Your task to perform on an android device: change the clock style Image 0: 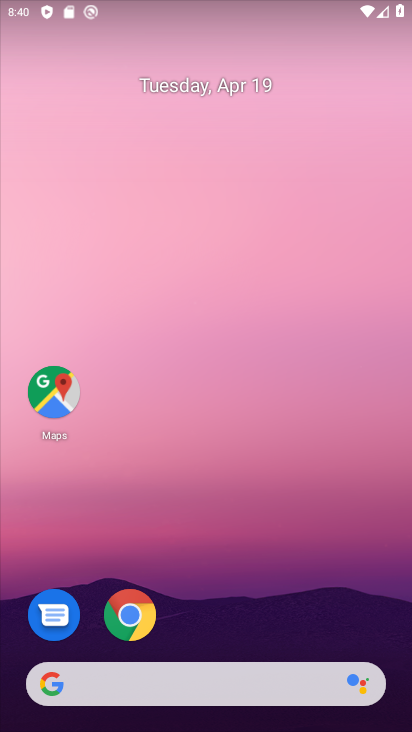
Step 0: drag from (271, 581) to (319, 234)
Your task to perform on an android device: change the clock style Image 1: 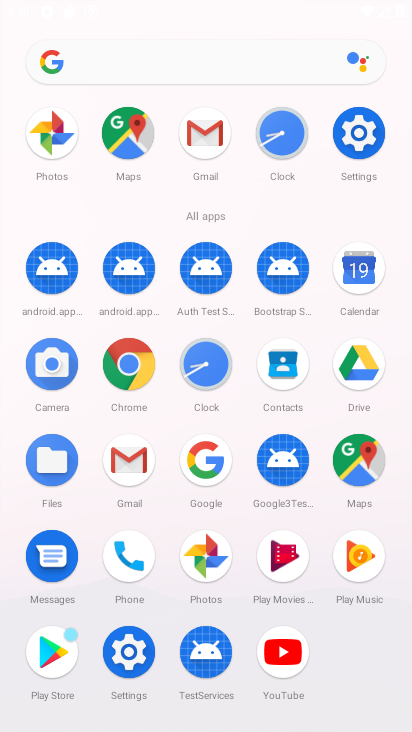
Step 1: click (286, 136)
Your task to perform on an android device: change the clock style Image 2: 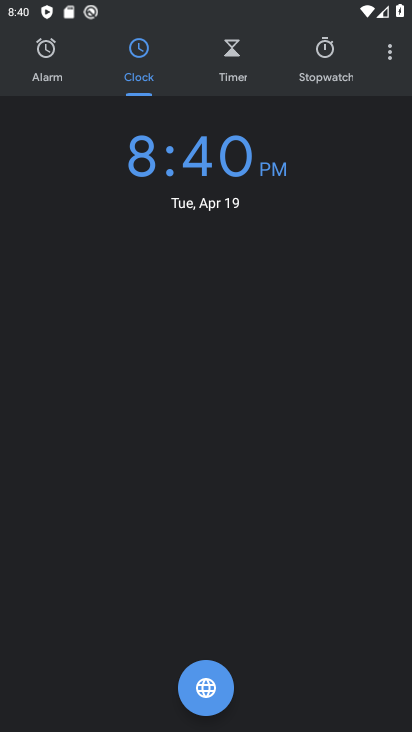
Step 2: click (391, 46)
Your task to perform on an android device: change the clock style Image 3: 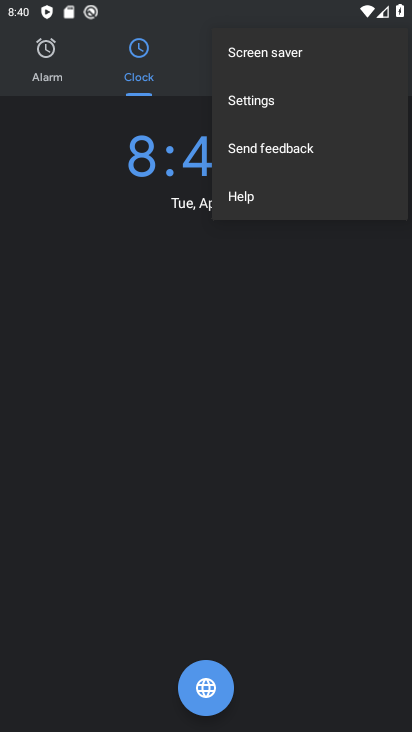
Step 3: click (261, 101)
Your task to perform on an android device: change the clock style Image 4: 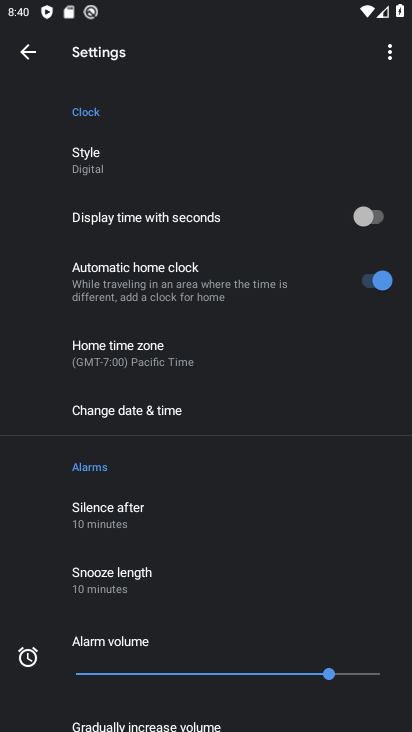
Step 4: click (85, 161)
Your task to perform on an android device: change the clock style Image 5: 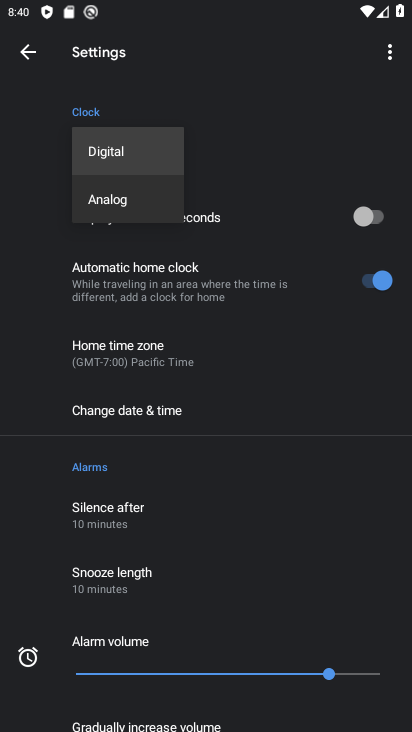
Step 5: click (142, 205)
Your task to perform on an android device: change the clock style Image 6: 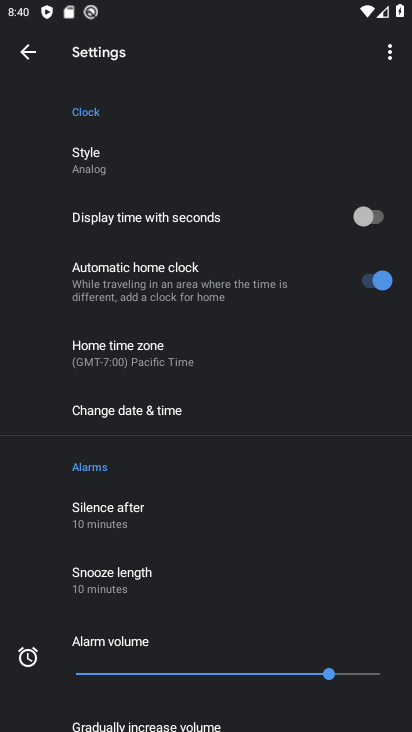
Step 6: task complete